Your task to perform on an android device: Open Youtube and go to "Your channel" Image 0: 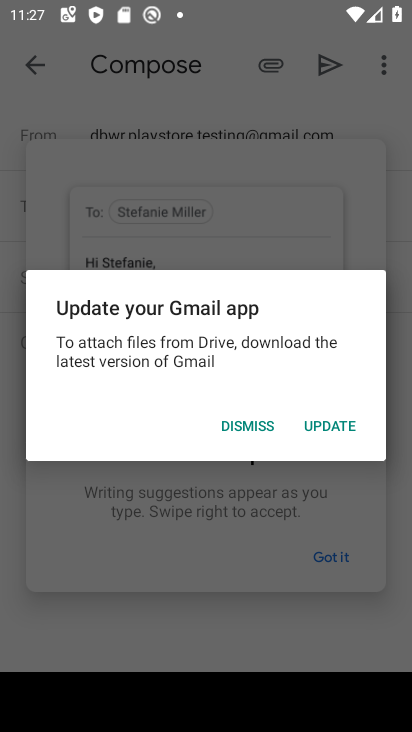
Step 0: press home button
Your task to perform on an android device: Open Youtube and go to "Your channel" Image 1: 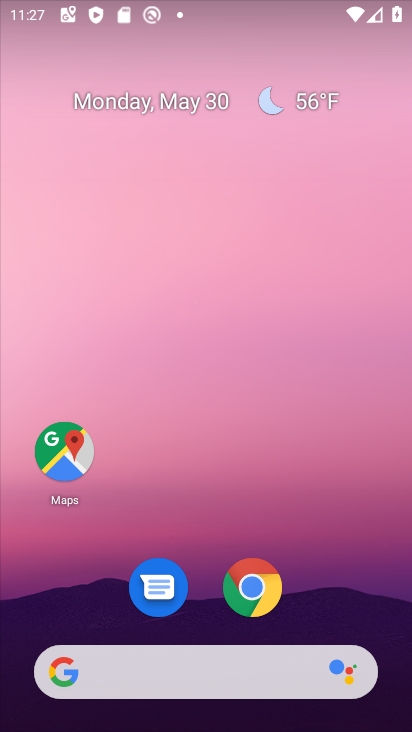
Step 1: drag from (319, 497) to (339, 7)
Your task to perform on an android device: Open Youtube and go to "Your channel" Image 2: 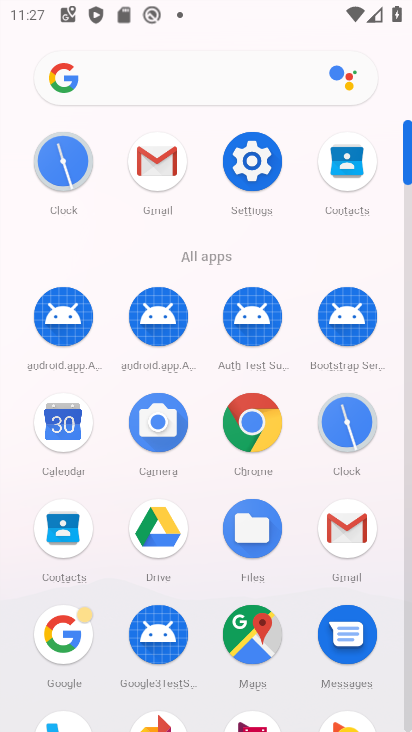
Step 2: drag from (188, 635) to (215, 177)
Your task to perform on an android device: Open Youtube and go to "Your channel" Image 3: 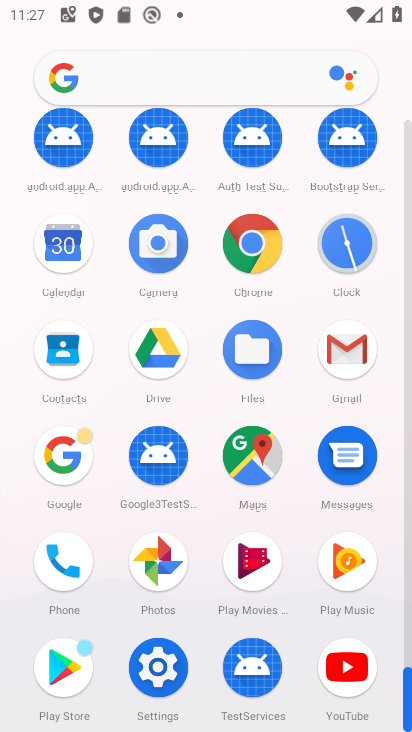
Step 3: click (352, 659)
Your task to perform on an android device: Open Youtube and go to "Your channel" Image 4: 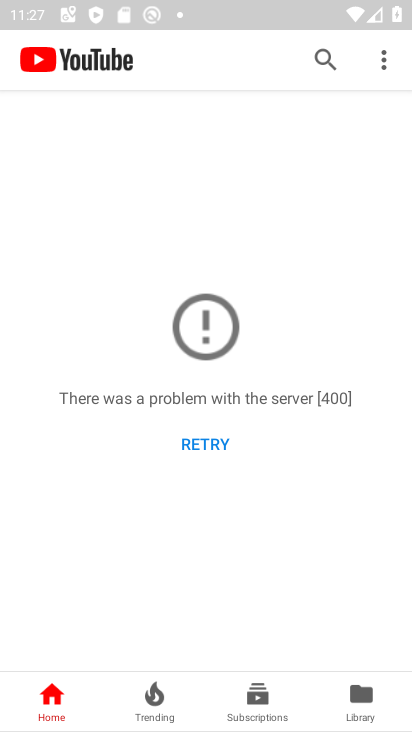
Step 4: click (186, 440)
Your task to perform on an android device: Open Youtube and go to "Your channel" Image 5: 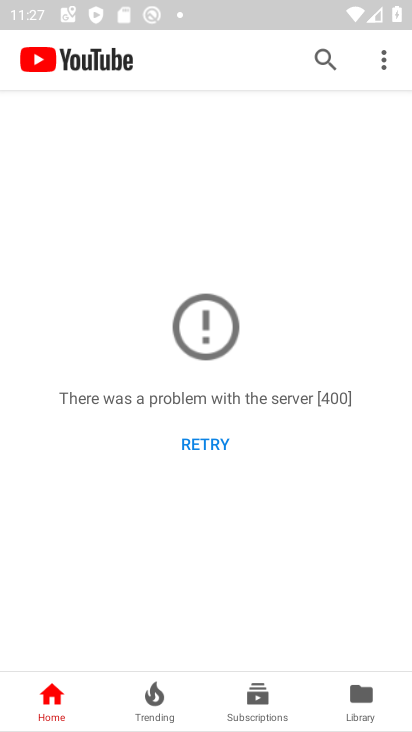
Step 5: click (191, 444)
Your task to perform on an android device: Open Youtube and go to "Your channel" Image 6: 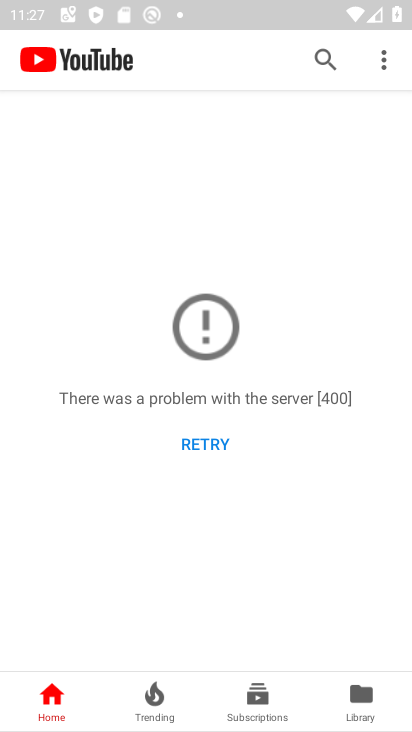
Step 6: click (193, 447)
Your task to perform on an android device: Open Youtube and go to "Your channel" Image 7: 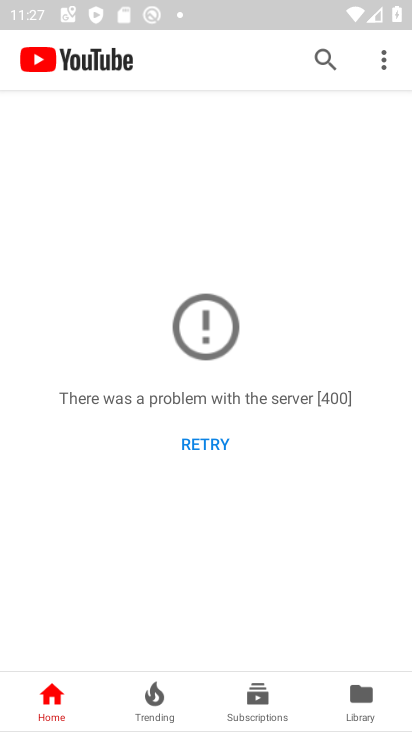
Step 7: task complete